Your task to perform on an android device: open chrome privacy settings Image 0: 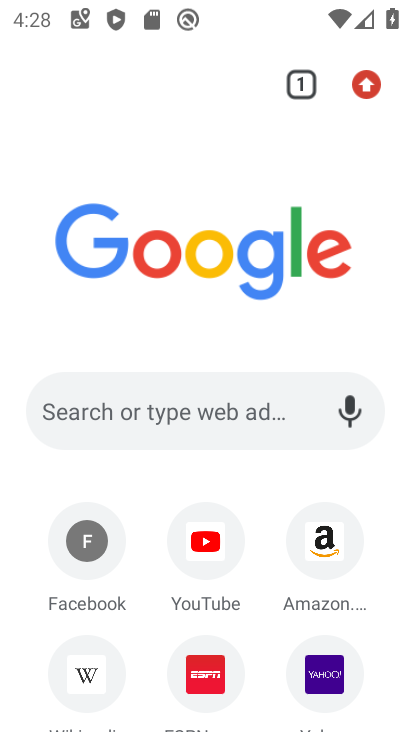
Step 0: press home button
Your task to perform on an android device: open chrome privacy settings Image 1: 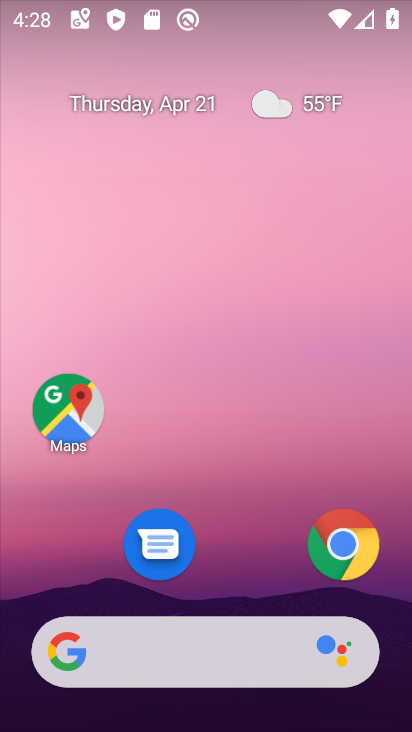
Step 1: drag from (210, 655) to (357, 100)
Your task to perform on an android device: open chrome privacy settings Image 2: 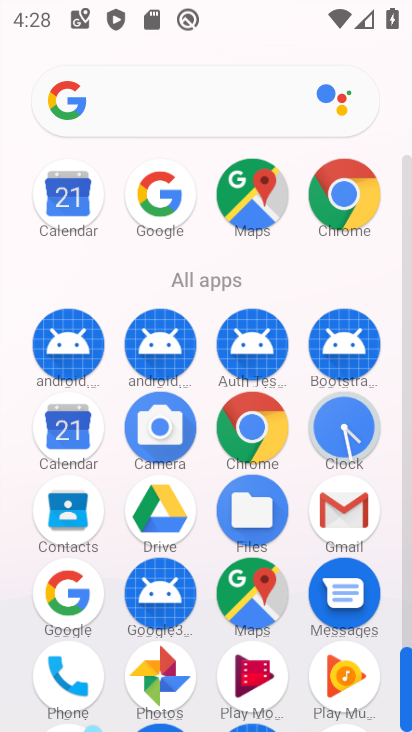
Step 2: click (265, 437)
Your task to perform on an android device: open chrome privacy settings Image 3: 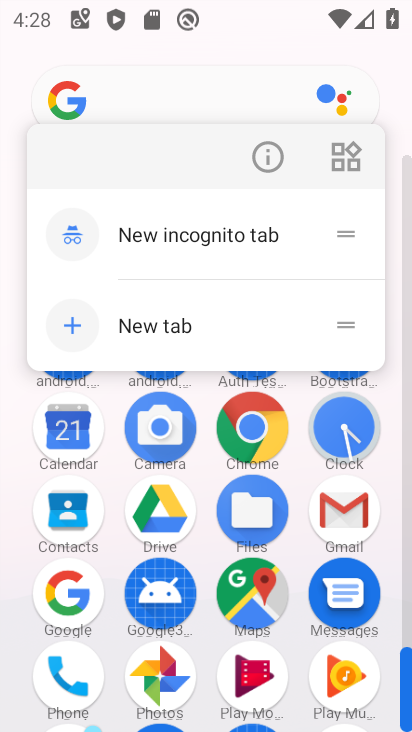
Step 3: click (265, 437)
Your task to perform on an android device: open chrome privacy settings Image 4: 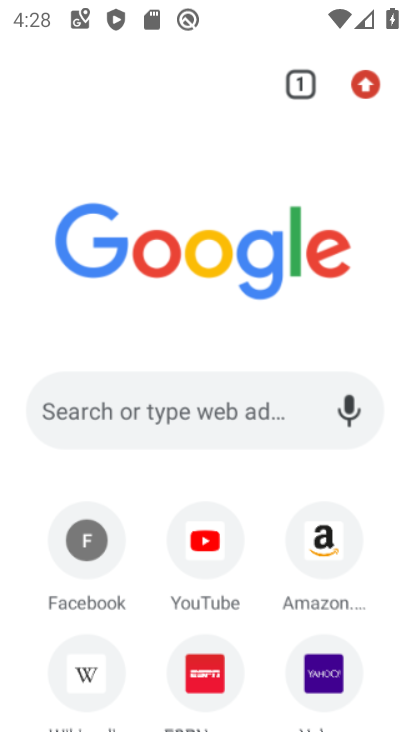
Step 4: click (265, 434)
Your task to perform on an android device: open chrome privacy settings Image 5: 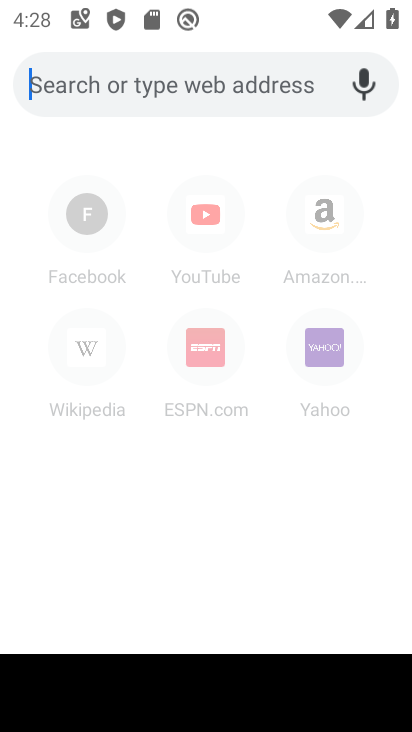
Step 5: click (185, 486)
Your task to perform on an android device: open chrome privacy settings Image 6: 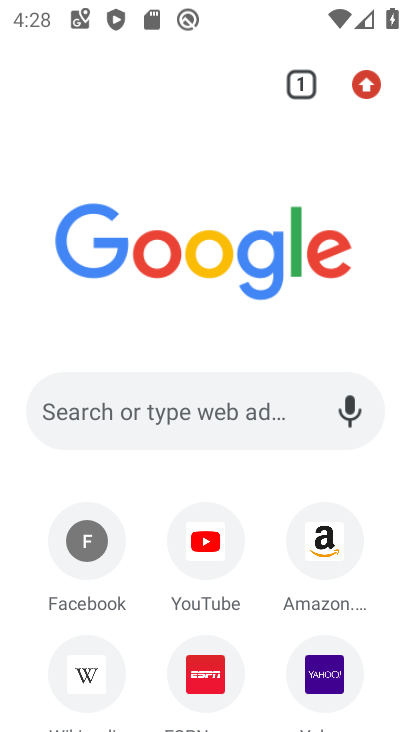
Step 6: drag from (372, 93) to (162, 580)
Your task to perform on an android device: open chrome privacy settings Image 7: 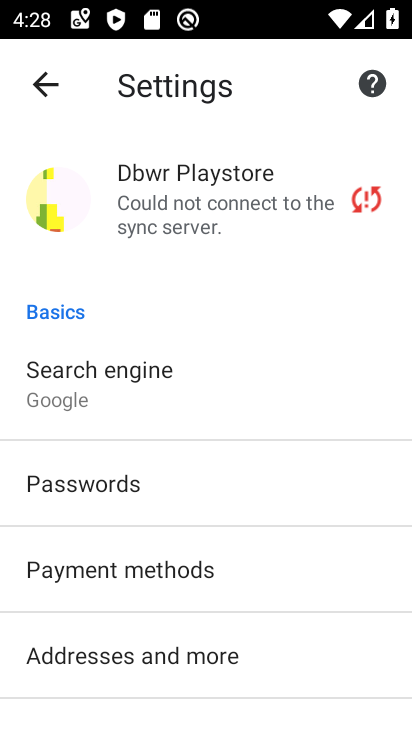
Step 7: drag from (215, 630) to (220, 235)
Your task to perform on an android device: open chrome privacy settings Image 8: 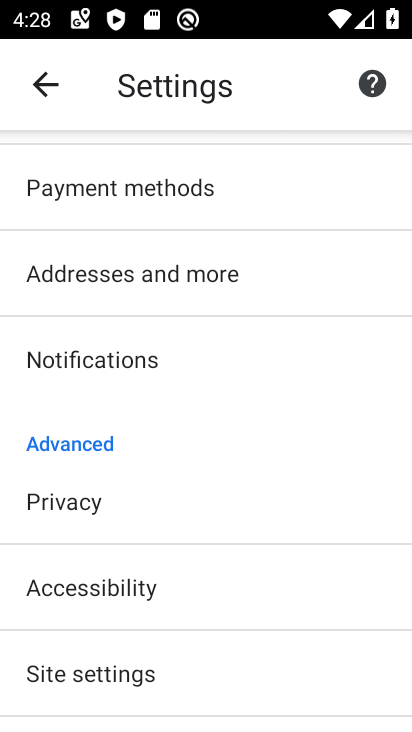
Step 8: click (71, 508)
Your task to perform on an android device: open chrome privacy settings Image 9: 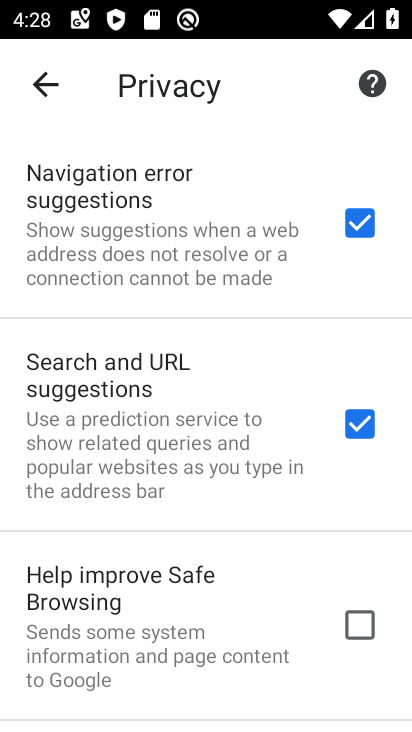
Step 9: task complete